Your task to perform on an android device: Open sound settings Image 0: 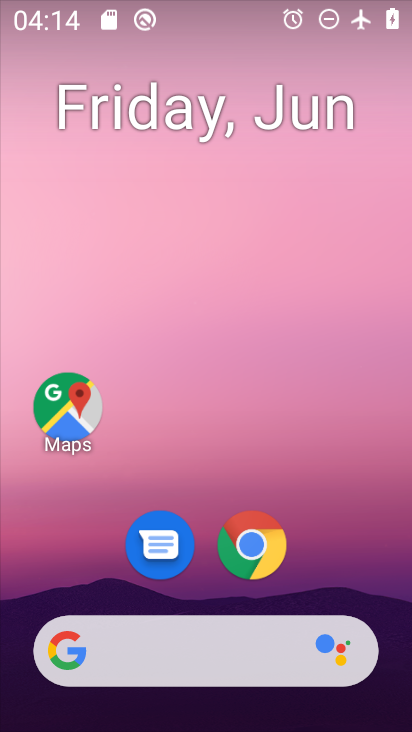
Step 0: drag from (350, 468) to (361, 57)
Your task to perform on an android device: Open sound settings Image 1: 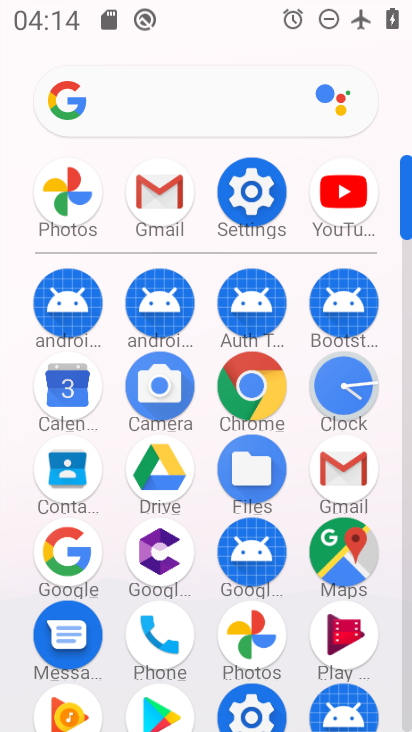
Step 1: click (248, 181)
Your task to perform on an android device: Open sound settings Image 2: 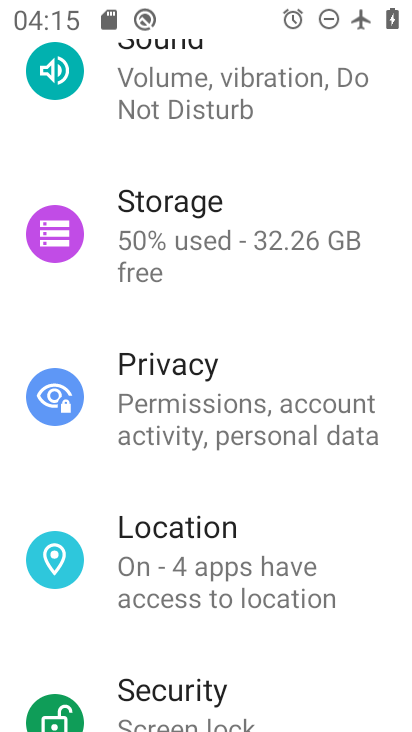
Step 2: click (204, 116)
Your task to perform on an android device: Open sound settings Image 3: 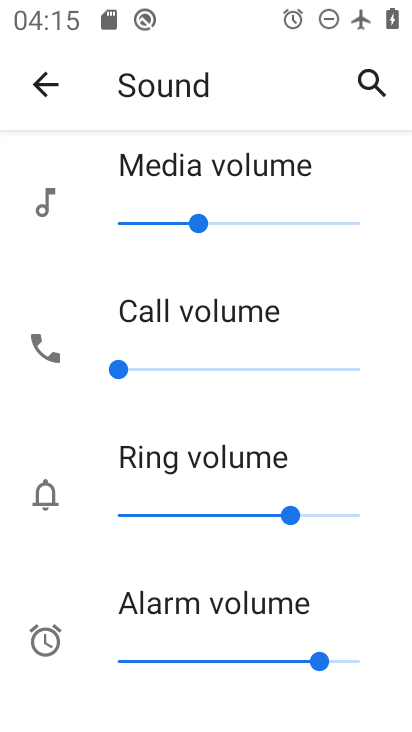
Step 3: task complete